Your task to perform on an android device: delete a single message in the gmail app Image 0: 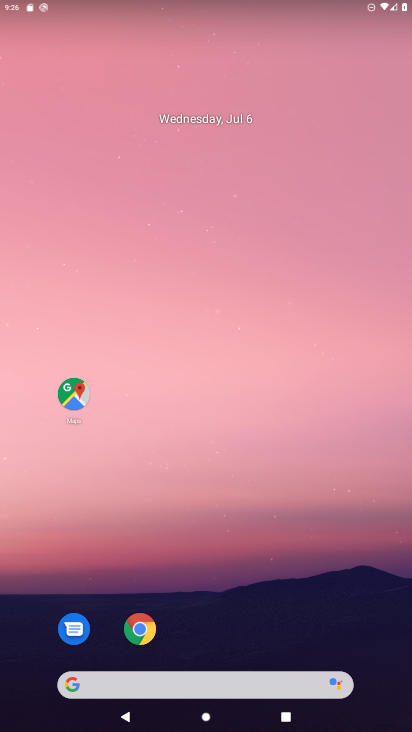
Step 0: drag from (212, 689) to (234, 12)
Your task to perform on an android device: delete a single message in the gmail app Image 1: 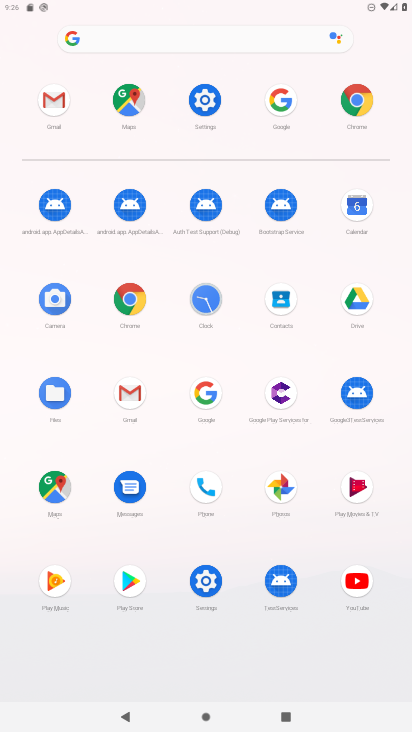
Step 1: click (126, 396)
Your task to perform on an android device: delete a single message in the gmail app Image 2: 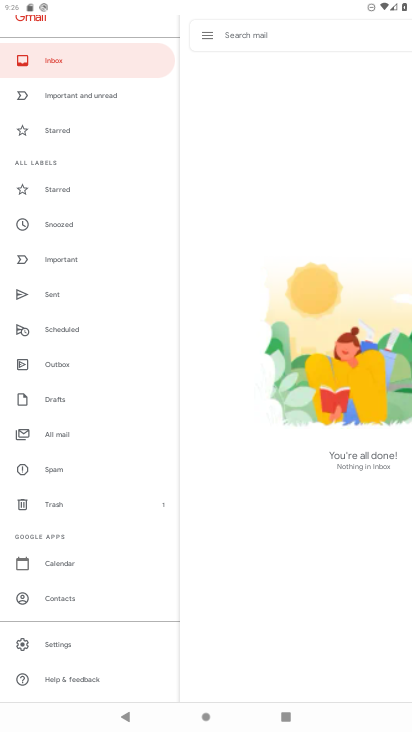
Step 2: task complete